Your task to perform on an android device: change keyboard looks Image 0: 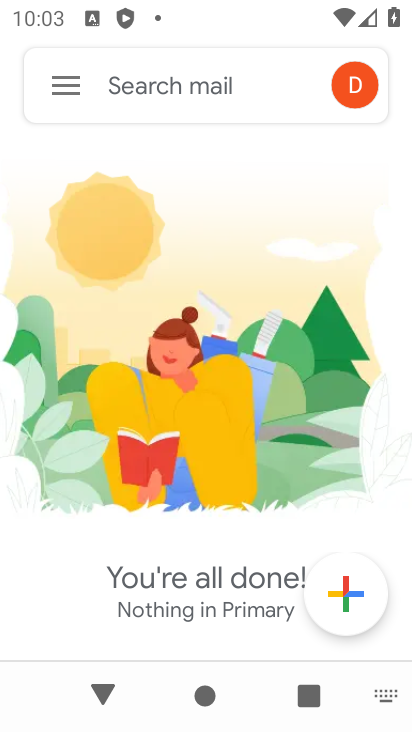
Step 0: click (172, 566)
Your task to perform on an android device: change keyboard looks Image 1: 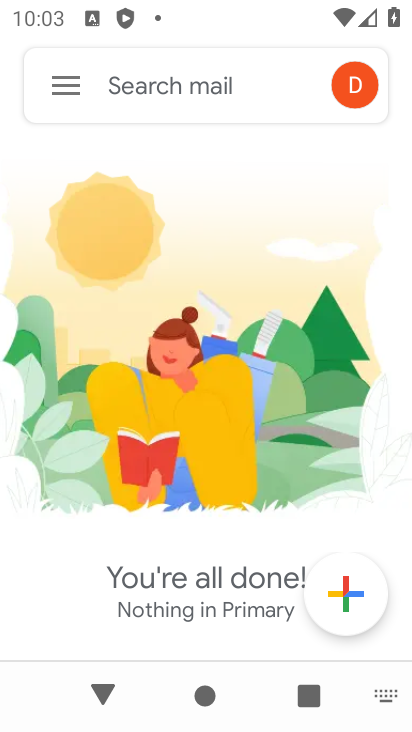
Step 1: press home button
Your task to perform on an android device: change keyboard looks Image 2: 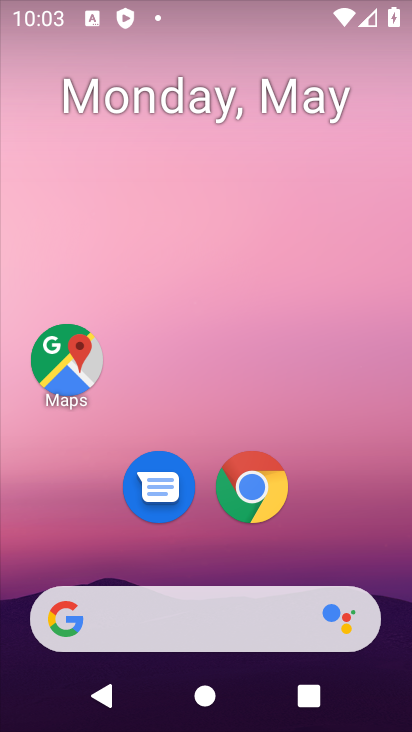
Step 2: drag from (203, 576) to (252, 5)
Your task to perform on an android device: change keyboard looks Image 3: 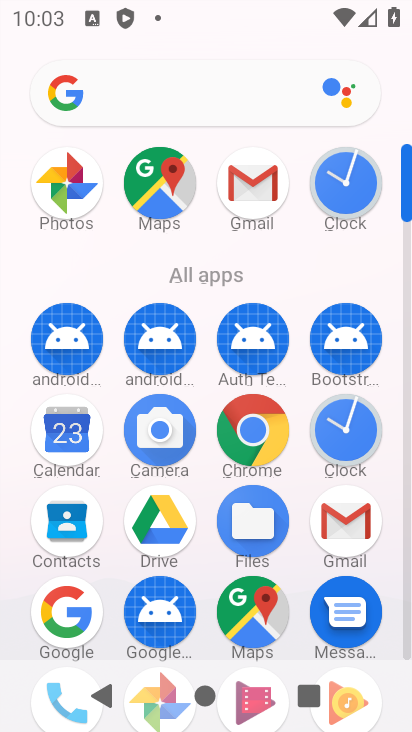
Step 3: drag from (206, 563) to (227, 166)
Your task to perform on an android device: change keyboard looks Image 4: 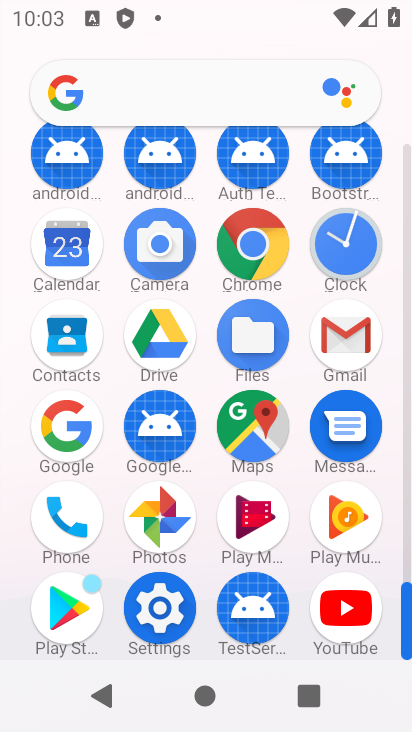
Step 4: click (162, 617)
Your task to perform on an android device: change keyboard looks Image 5: 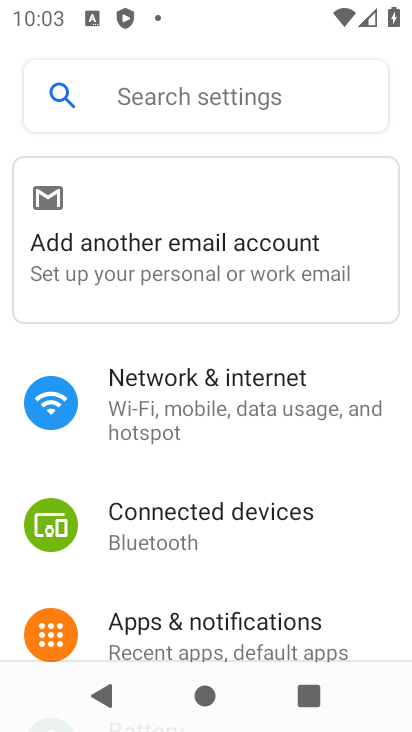
Step 5: drag from (162, 617) to (185, 154)
Your task to perform on an android device: change keyboard looks Image 6: 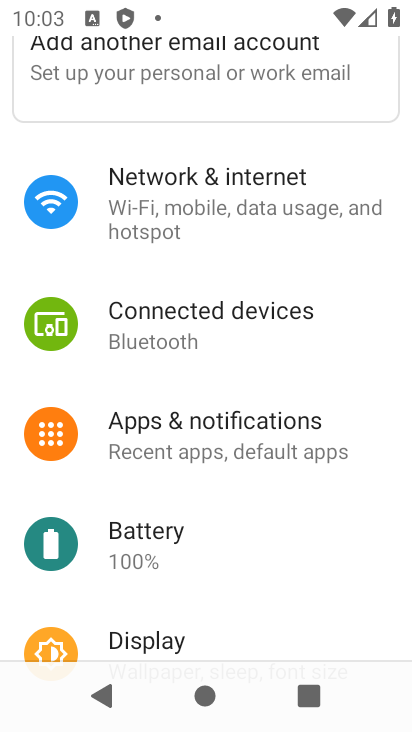
Step 6: drag from (152, 612) to (196, 136)
Your task to perform on an android device: change keyboard looks Image 7: 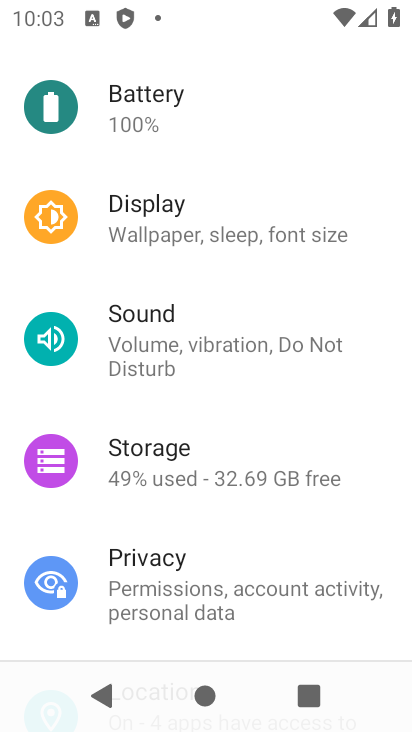
Step 7: drag from (126, 635) to (232, 29)
Your task to perform on an android device: change keyboard looks Image 8: 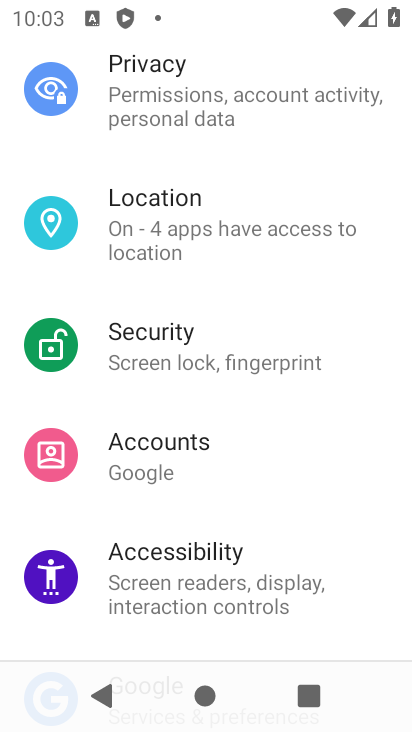
Step 8: drag from (58, 585) to (152, 22)
Your task to perform on an android device: change keyboard looks Image 9: 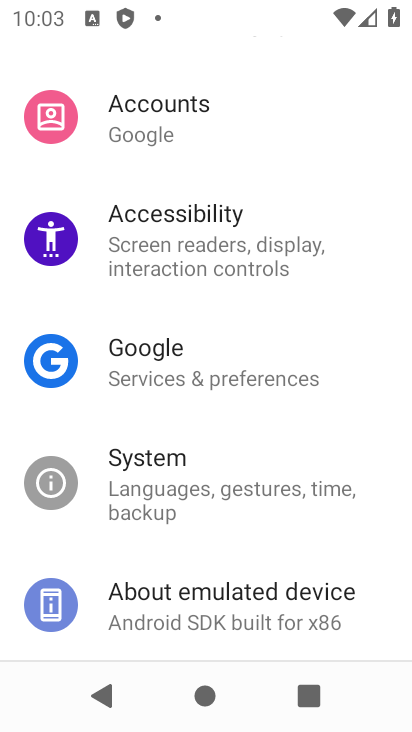
Step 9: click (196, 472)
Your task to perform on an android device: change keyboard looks Image 10: 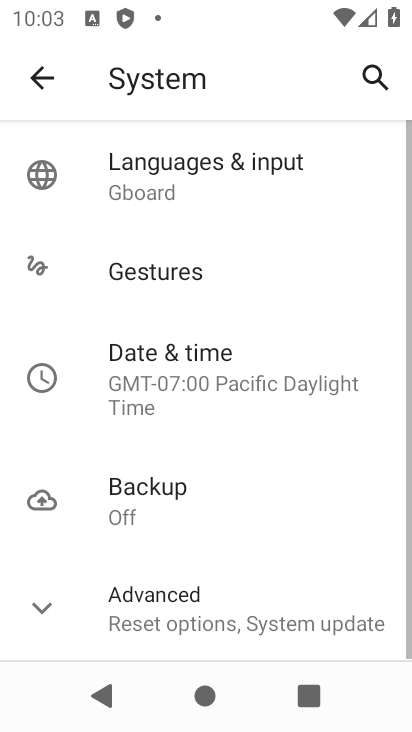
Step 10: click (171, 139)
Your task to perform on an android device: change keyboard looks Image 11: 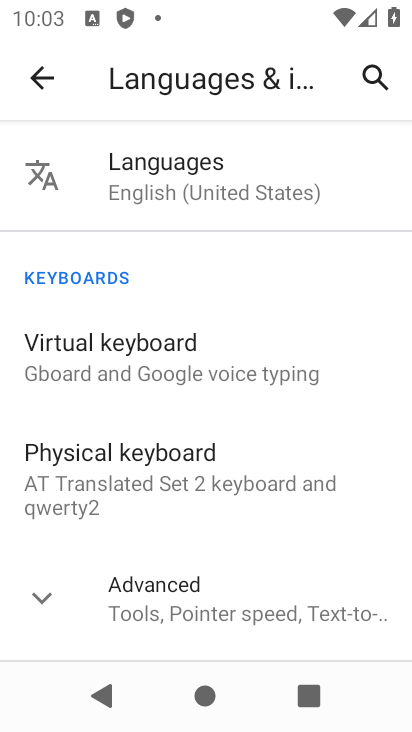
Step 11: click (58, 391)
Your task to perform on an android device: change keyboard looks Image 12: 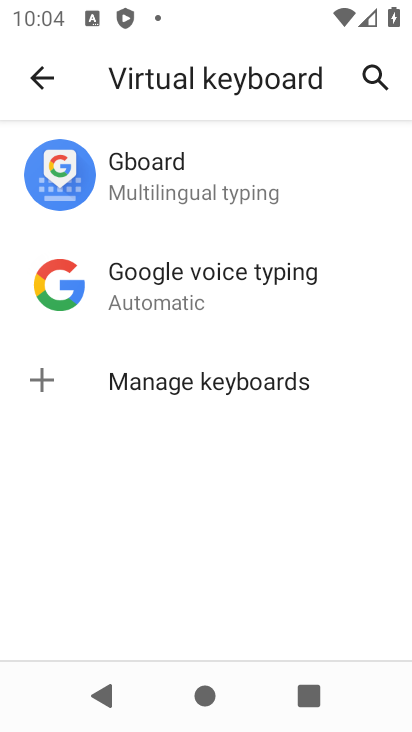
Step 12: click (174, 187)
Your task to perform on an android device: change keyboard looks Image 13: 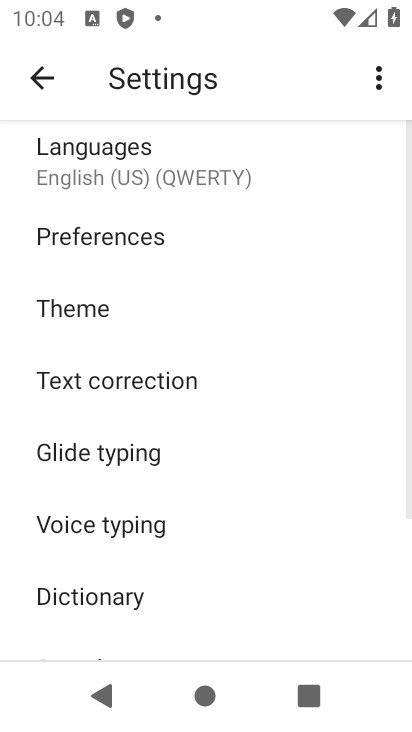
Step 13: click (90, 313)
Your task to perform on an android device: change keyboard looks Image 14: 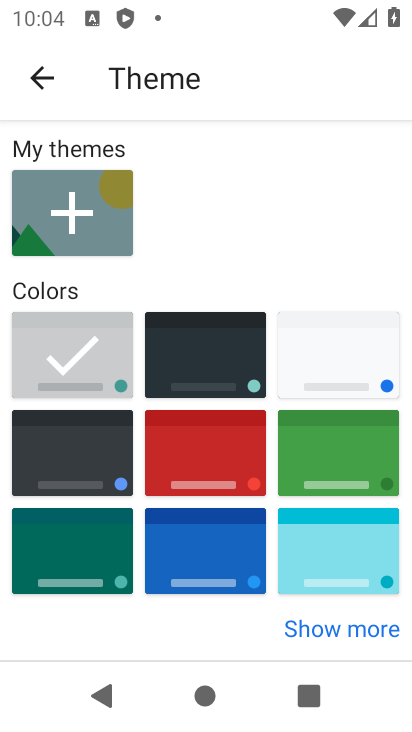
Step 14: click (253, 475)
Your task to perform on an android device: change keyboard looks Image 15: 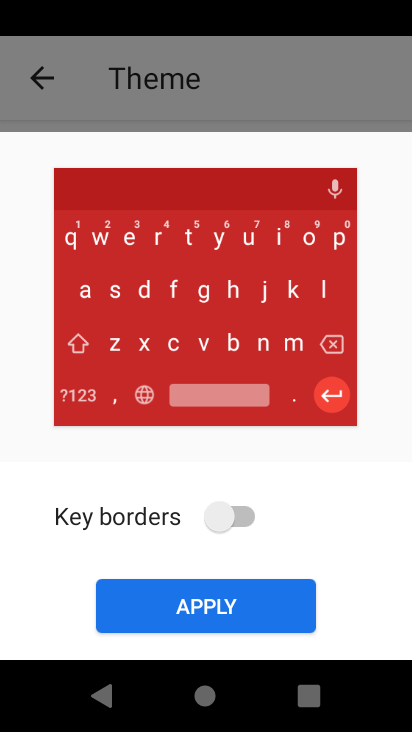
Step 15: click (236, 527)
Your task to perform on an android device: change keyboard looks Image 16: 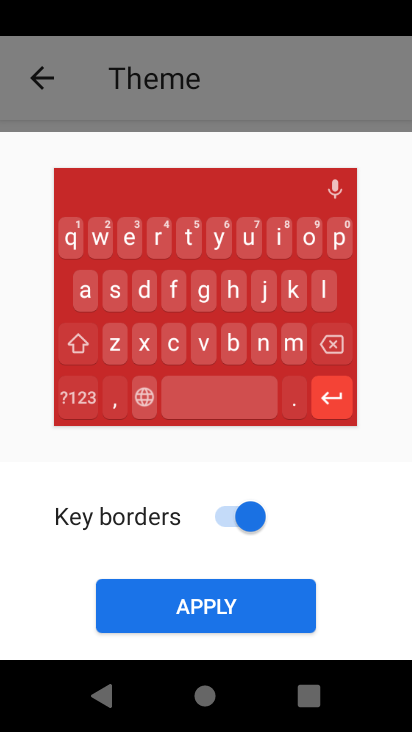
Step 16: click (210, 608)
Your task to perform on an android device: change keyboard looks Image 17: 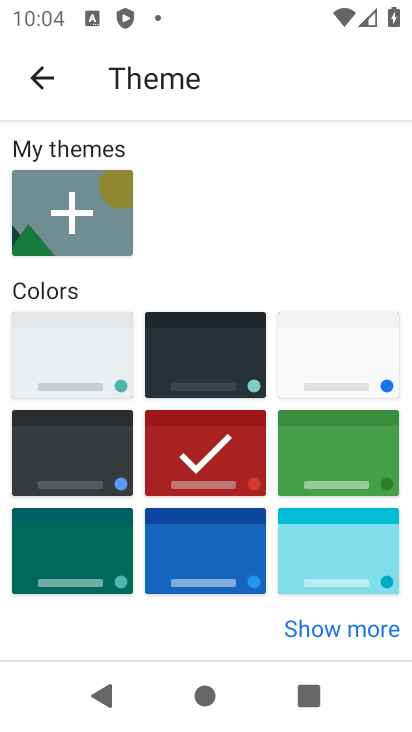
Step 17: task complete